Your task to perform on an android device: Go to eBay Image 0: 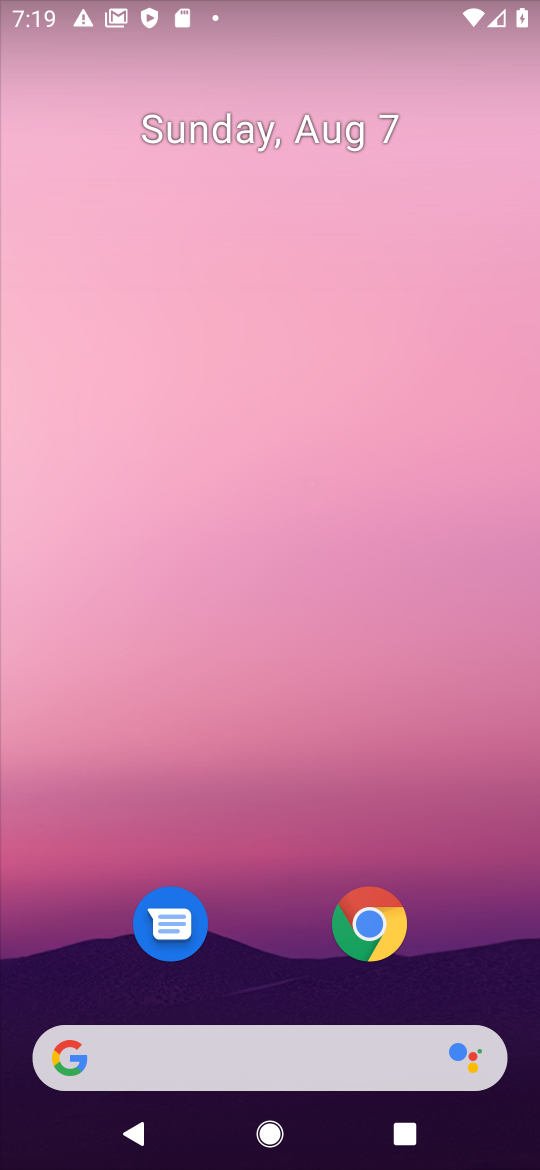
Step 0: drag from (229, 1033) to (216, 353)
Your task to perform on an android device: Go to eBay Image 1: 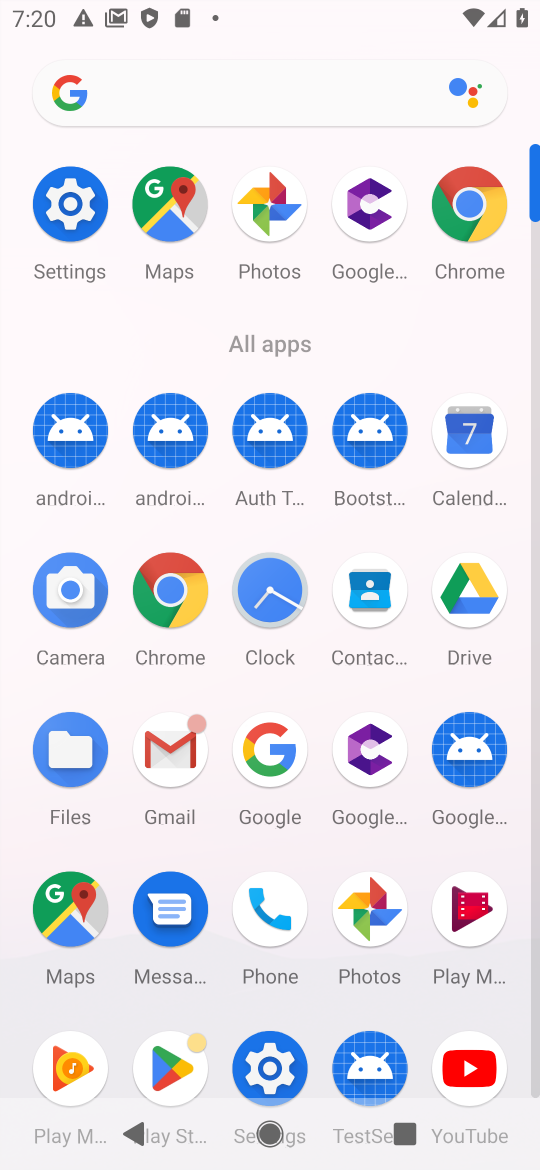
Step 1: click (479, 229)
Your task to perform on an android device: Go to eBay Image 2: 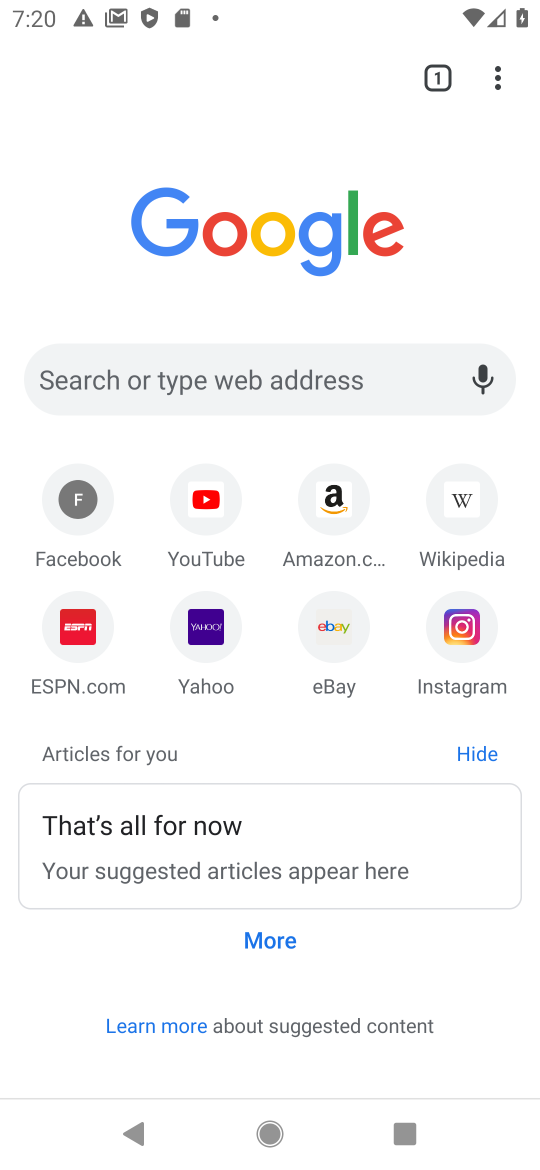
Step 2: click (328, 632)
Your task to perform on an android device: Go to eBay Image 3: 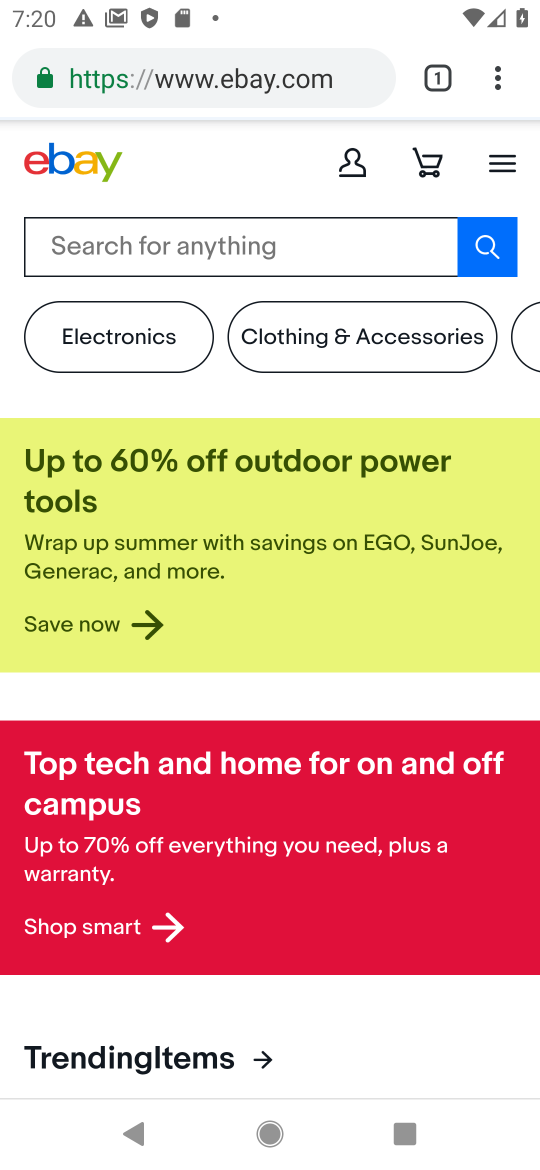
Step 3: task complete